Your task to perform on an android device: empty trash in the gmail app Image 0: 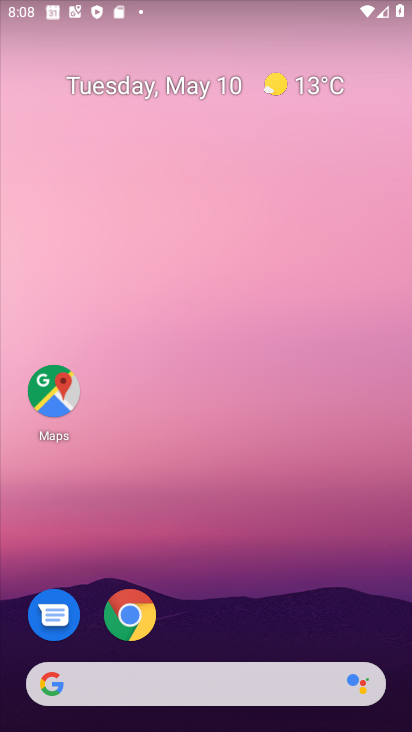
Step 0: drag from (299, 544) to (191, 125)
Your task to perform on an android device: empty trash in the gmail app Image 1: 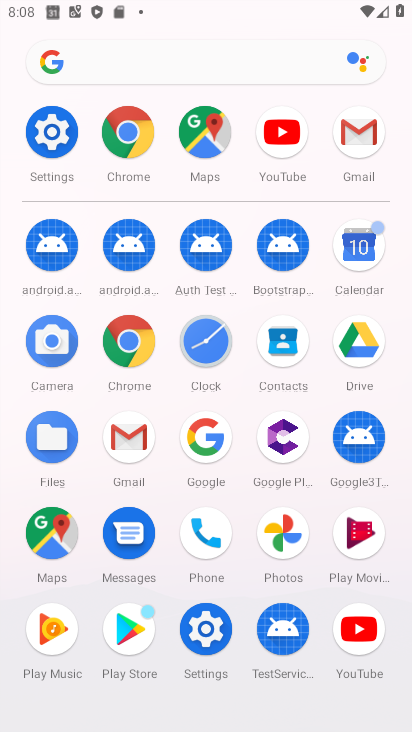
Step 1: click (130, 434)
Your task to perform on an android device: empty trash in the gmail app Image 2: 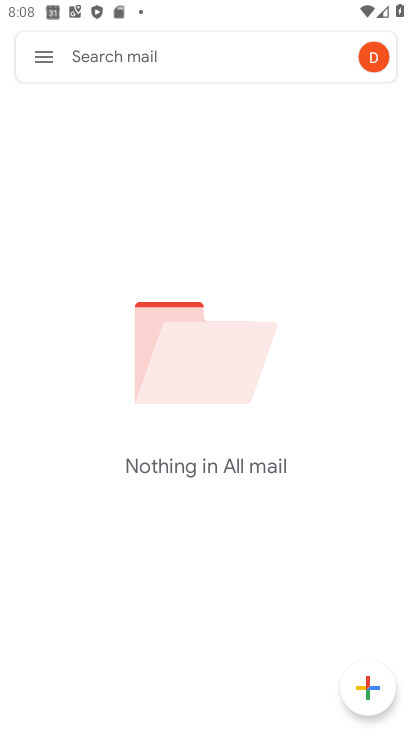
Step 2: click (47, 56)
Your task to perform on an android device: empty trash in the gmail app Image 3: 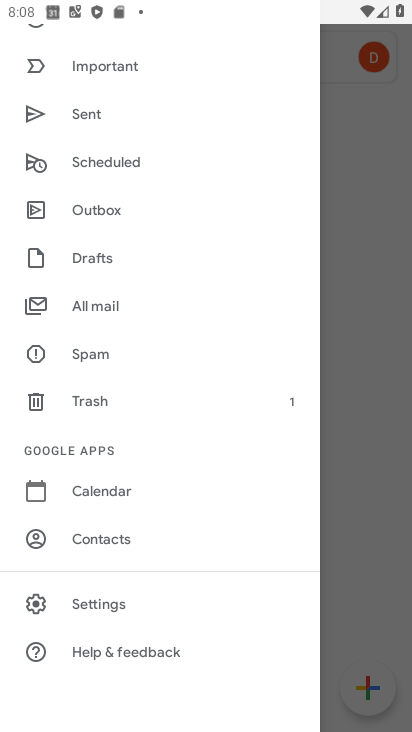
Step 3: click (91, 398)
Your task to perform on an android device: empty trash in the gmail app Image 4: 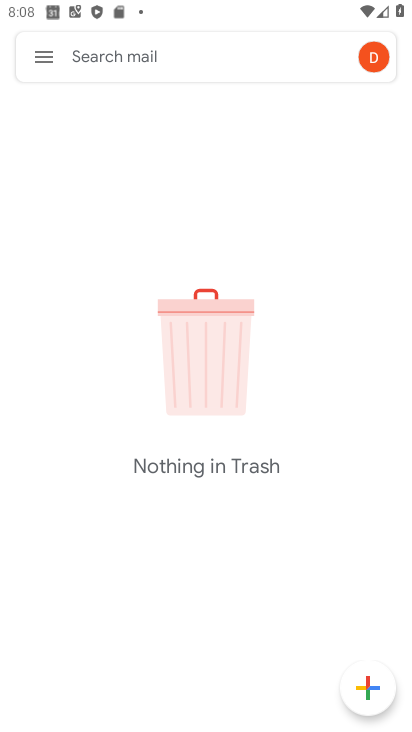
Step 4: task complete